Your task to perform on an android device: Open the phone app and click the voicemail tab. Image 0: 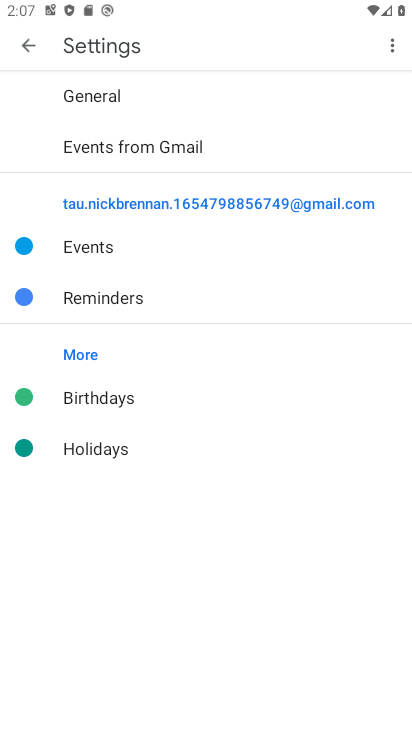
Step 0: press home button
Your task to perform on an android device: Open the phone app and click the voicemail tab. Image 1: 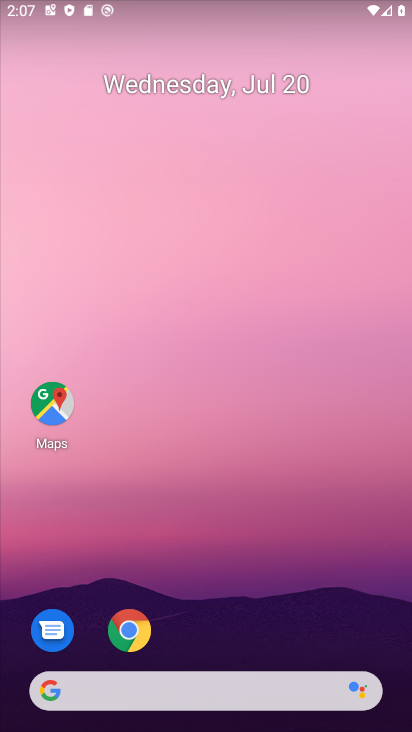
Step 1: drag from (341, 599) to (363, 108)
Your task to perform on an android device: Open the phone app and click the voicemail tab. Image 2: 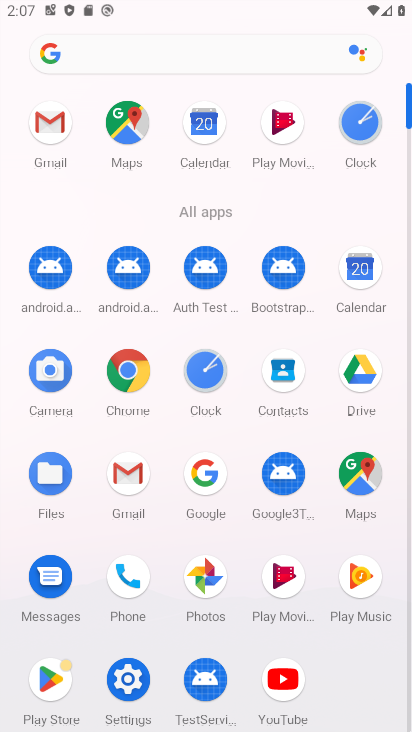
Step 2: click (128, 571)
Your task to perform on an android device: Open the phone app and click the voicemail tab. Image 3: 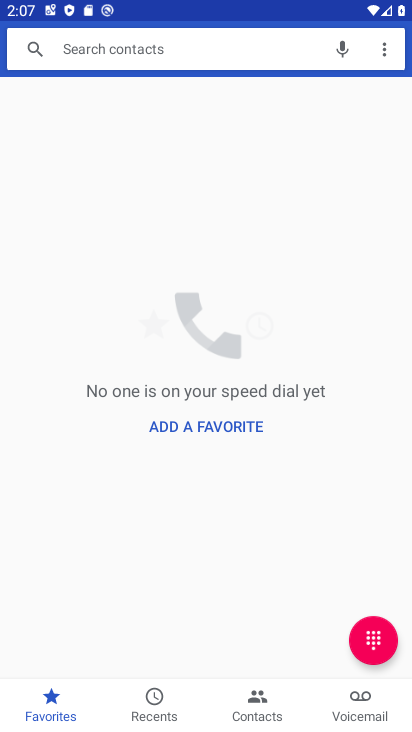
Step 3: click (377, 697)
Your task to perform on an android device: Open the phone app and click the voicemail tab. Image 4: 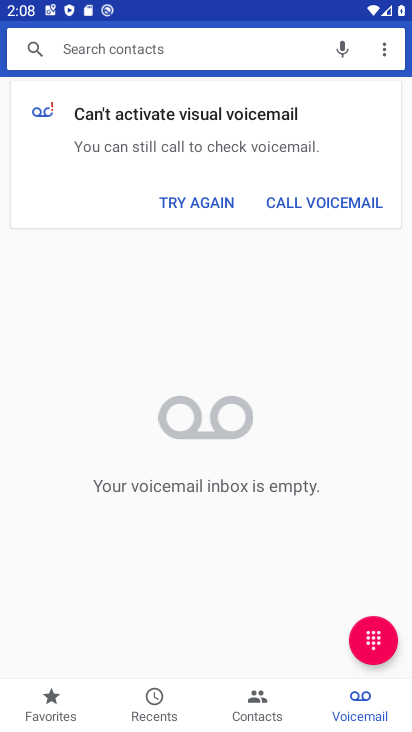
Step 4: task complete